Your task to perform on an android device: Go to Reddit.com Image 0: 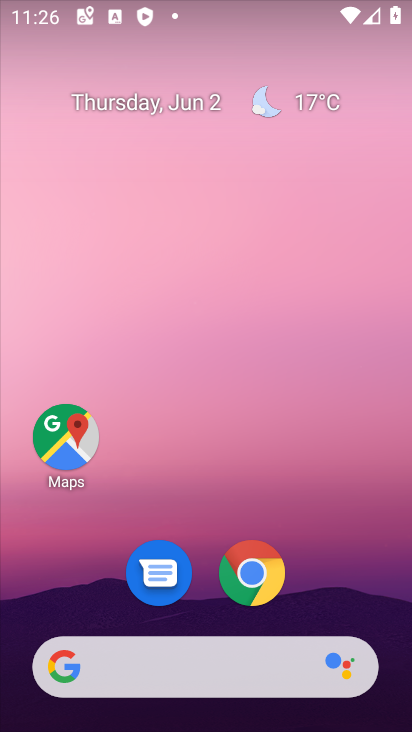
Step 0: drag from (361, 512) to (346, 50)
Your task to perform on an android device: Go to Reddit.com Image 1: 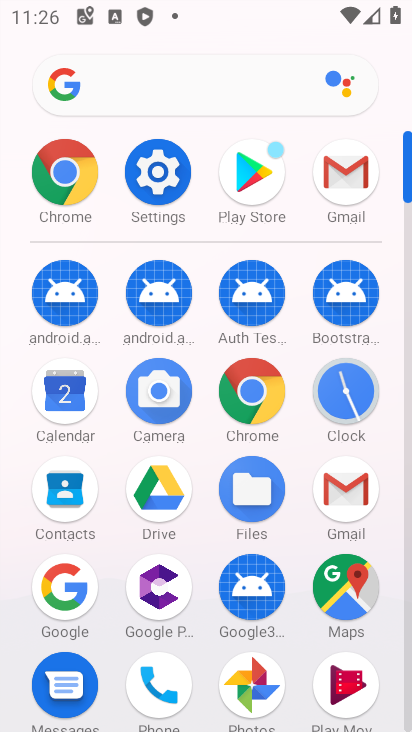
Step 1: click (75, 164)
Your task to perform on an android device: Go to Reddit.com Image 2: 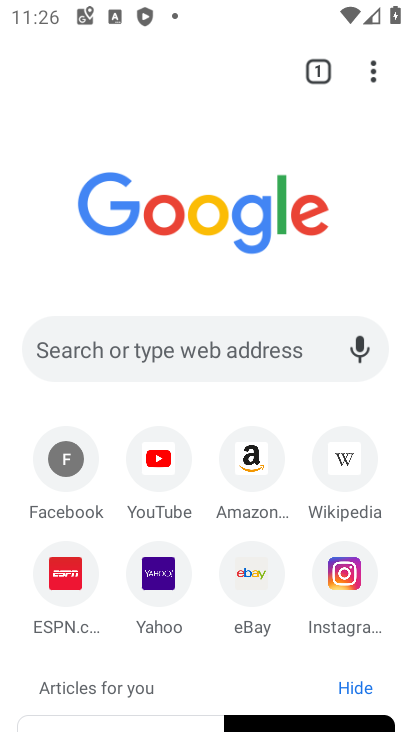
Step 2: click (180, 365)
Your task to perform on an android device: Go to Reddit.com Image 3: 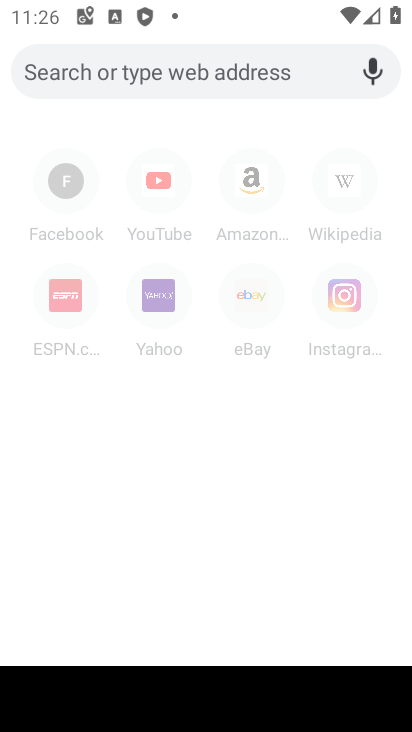
Step 3: type "reddit"
Your task to perform on an android device: Go to Reddit.com Image 4: 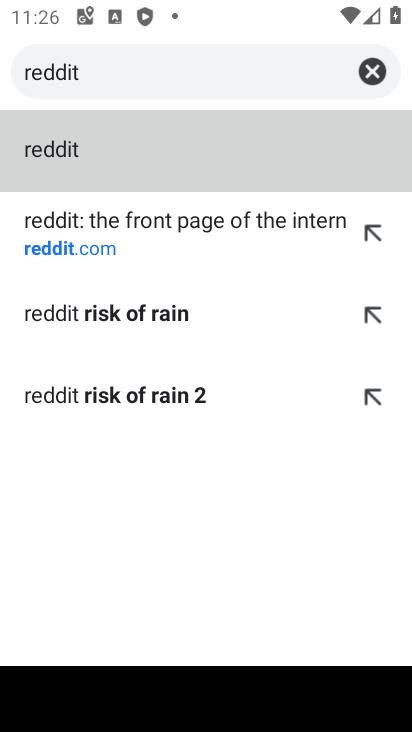
Step 4: click (64, 218)
Your task to perform on an android device: Go to Reddit.com Image 5: 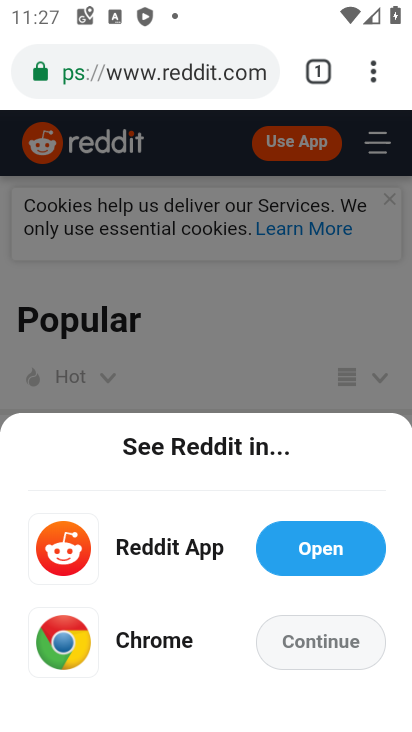
Step 5: task complete